Your task to perform on an android device: Open the map Image 0: 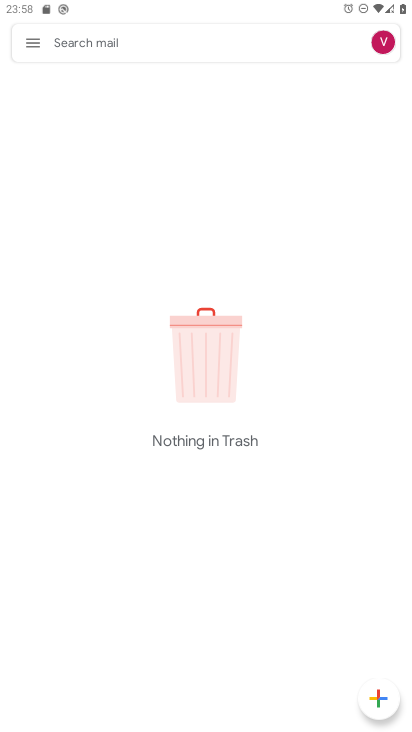
Step 0: press home button
Your task to perform on an android device: Open the map Image 1: 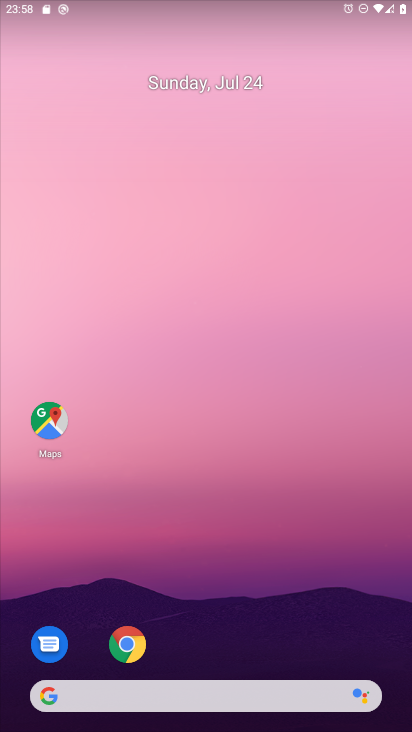
Step 1: click (48, 422)
Your task to perform on an android device: Open the map Image 2: 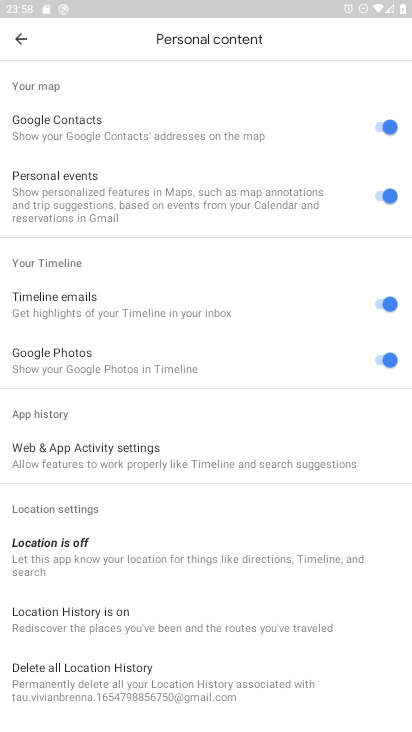
Step 2: task complete